Your task to perform on an android device: Go to settings Image 0: 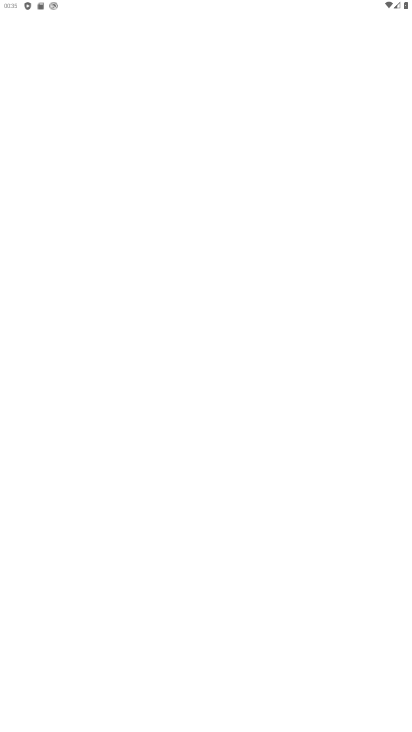
Step 0: click (257, 668)
Your task to perform on an android device: Go to settings Image 1: 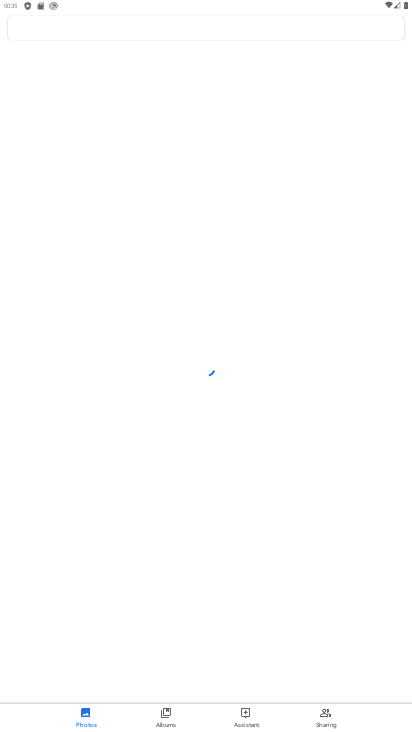
Step 1: press home button
Your task to perform on an android device: Go to settings Image 2: 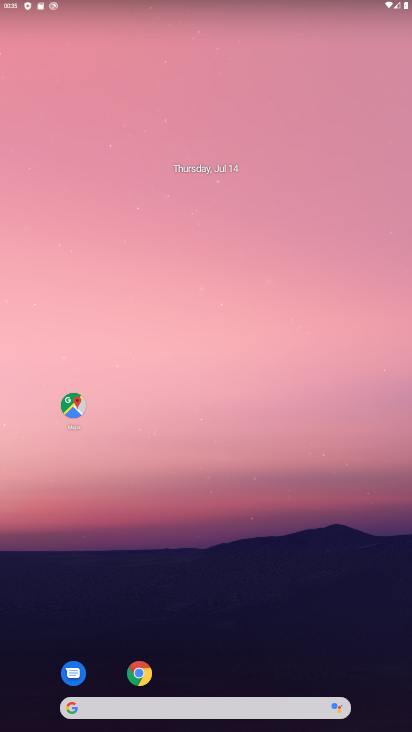
Step 2: drag from (256, 657) to (242, 248)
Your task to perform on an android device: Go to settings Image 3: 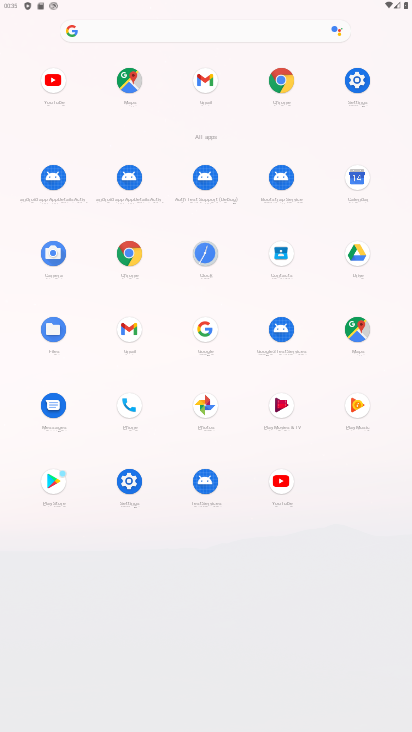
Step 3: click (365, 89)
Your task to perform on an android device: Go to settings Image 4: 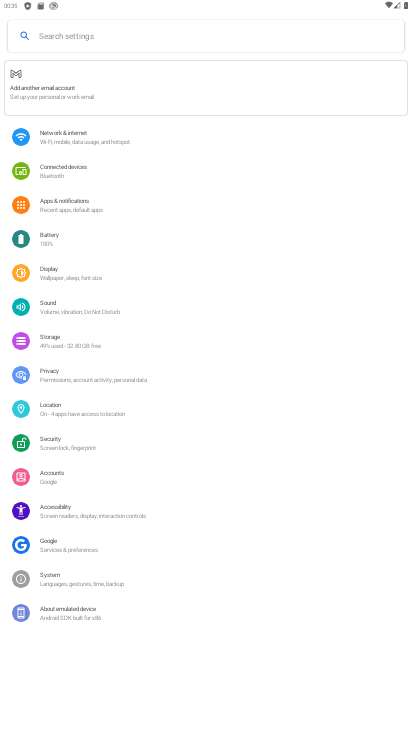
Step 4: task complete